Your task to perform on an android device: Open maps Image 0: 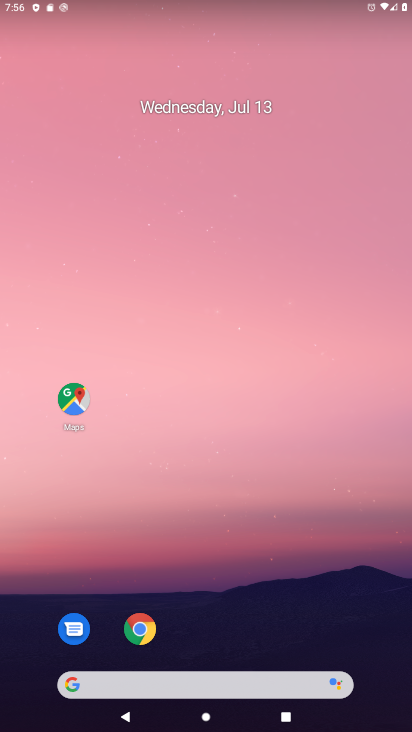
Step 0: drag from (243, 632) to (270, 64)
Your task to perform on an android device: Open maps Image 1: 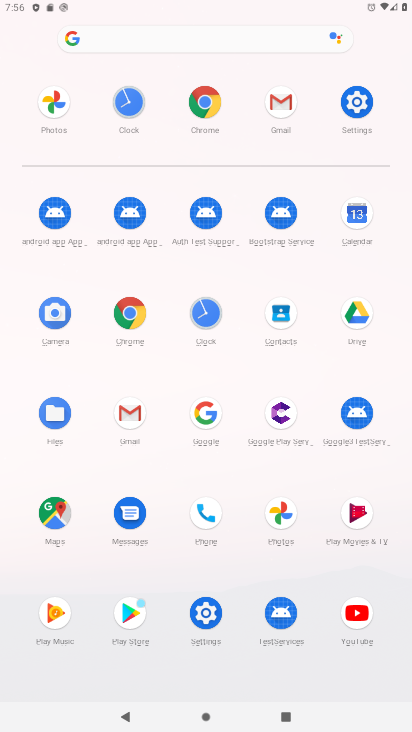
Step 1: click (66, 524)
Your task to perform on an android device: Open maps Image 2: 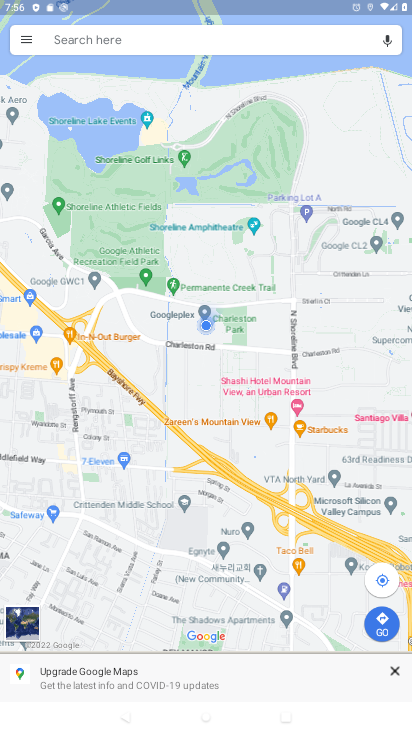
Step 2: task complete